Your task to perform on an android device: Open the stopwatch Image 0: 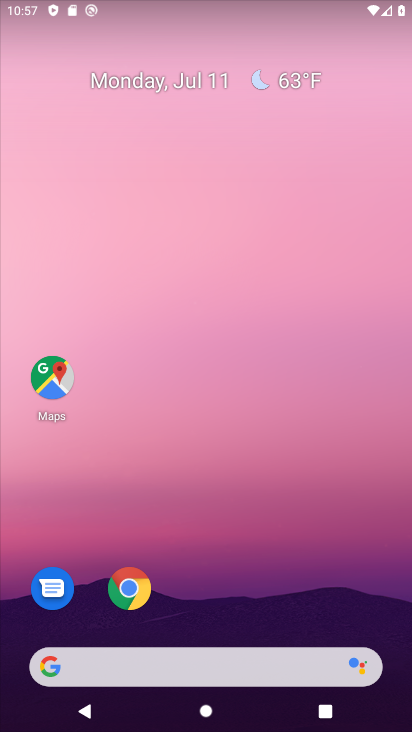
Step 0: drag from (261, 725) to (263, 112)
Your task to perform on an android device: Open the stopwatch Image 1: 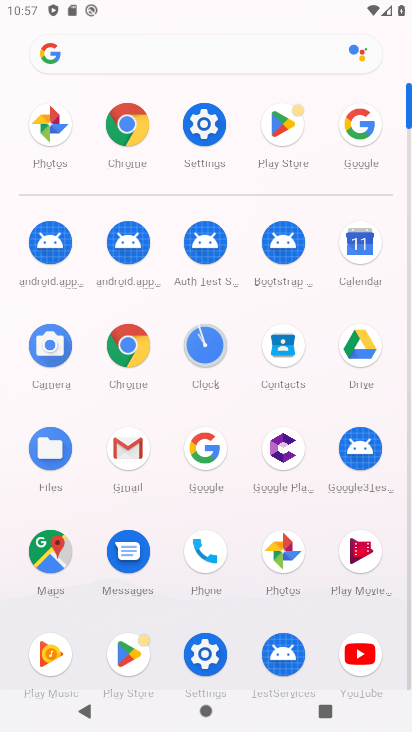
Step 1: click (208, 346)
Your task to perform on an android device: Open the stopwatch Image 2: 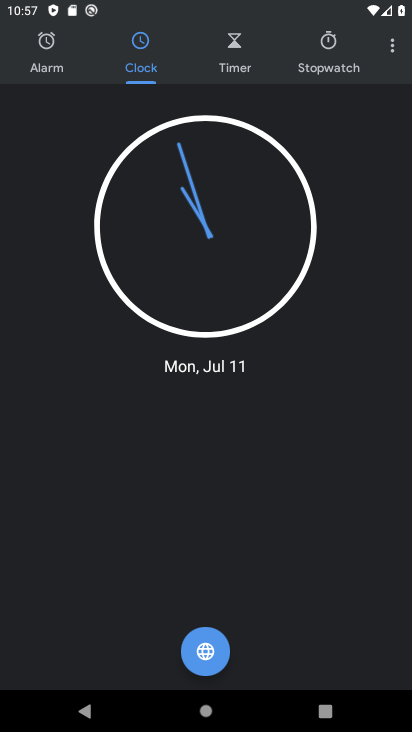
Step 2: click (315, 44)
Your task to perform on an android device: Open the stopwatch Image 3: 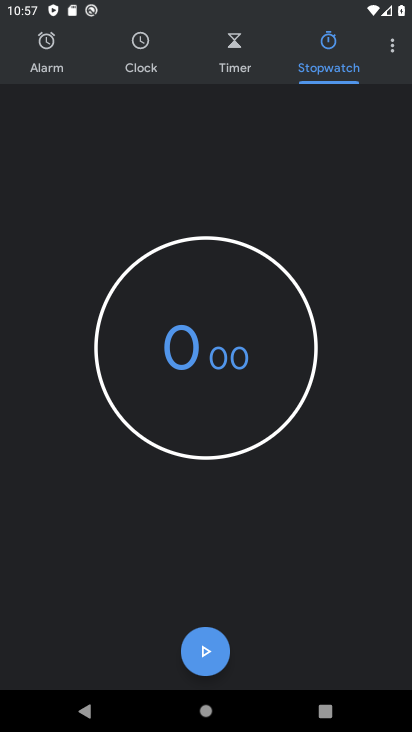
Step 3: task complete